Your task to perform on an android device: Open Google Image 0: 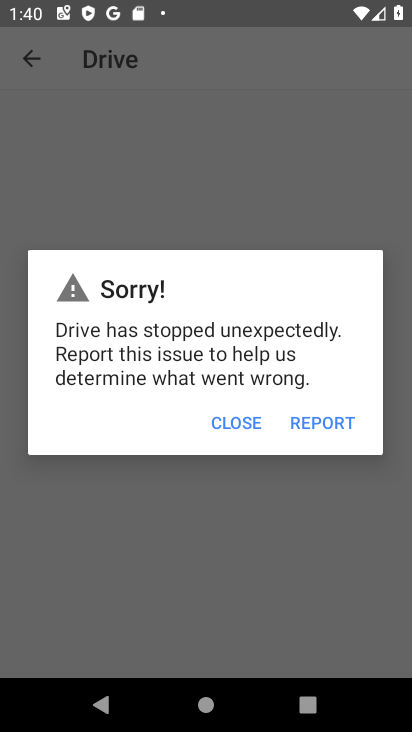
Step 0: press home button
Your task to perform on an android device: Open Google Image 1: 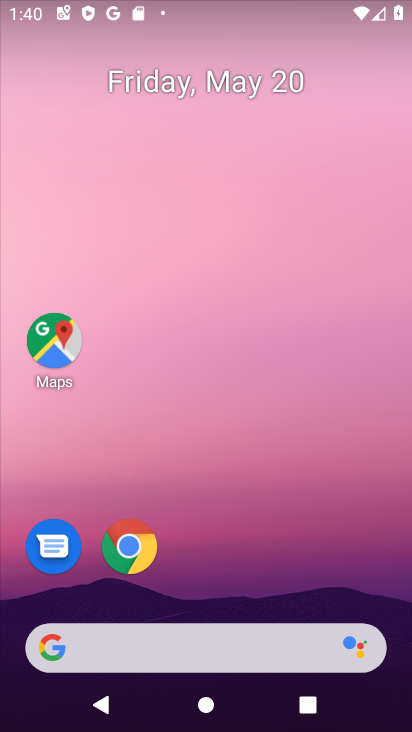
Step 1: drag from (244, 624) to (359, 11)
Your task to perform on an android device: Open Google Image 2: 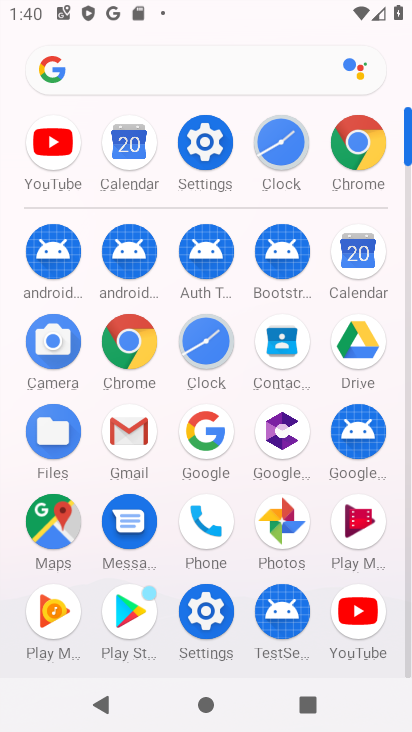
Step 2: click (139, 341)
Your task to perform on an android device: Open Google Image 3: 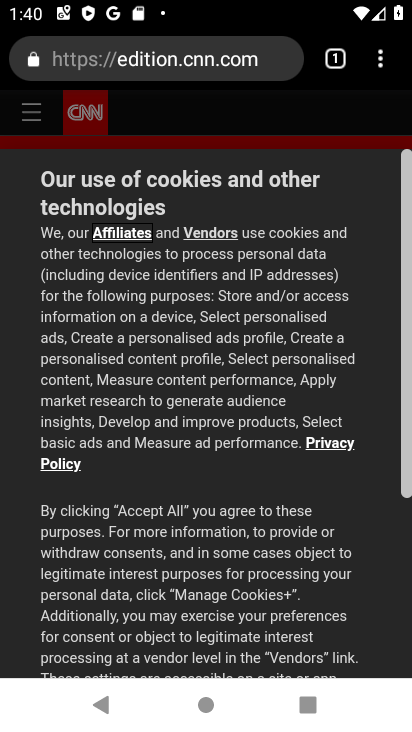
Step 3: task complete